Your task to perform on an android device: uninstall "Nova Launcher" Image 0: 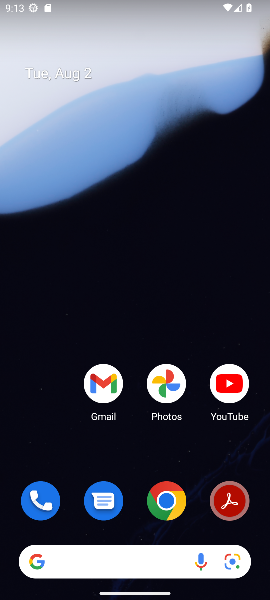
Step 0: drag from (135, 513) to (142, 135)
Your task to perform on an android device: uninstall "Nova Launcher" Image 1: 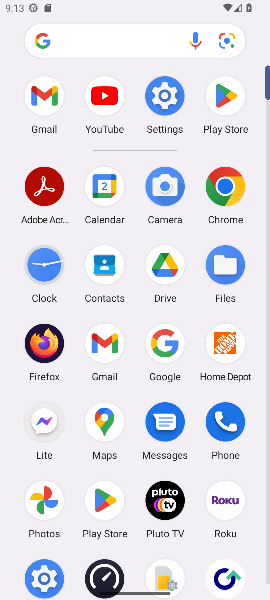
Step 1: click (235, 106)
Your task to perform on an android device: uninstall "Nova Launcher" Image 2: 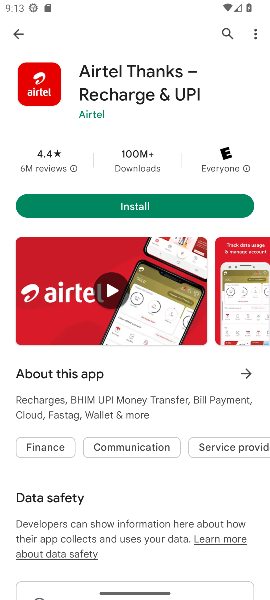
Step 2: drag from (155, 116) to (125, 594)
Your task to perform on an android device: uninstall "Nova Launcher" Image 3: 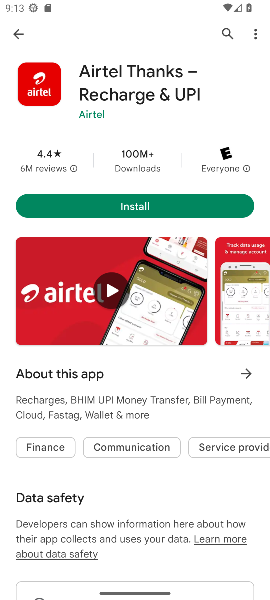
Step 3: click (223, 38)
Your task to perform on an android device: uninstall "Nova Launcher" Image 4: 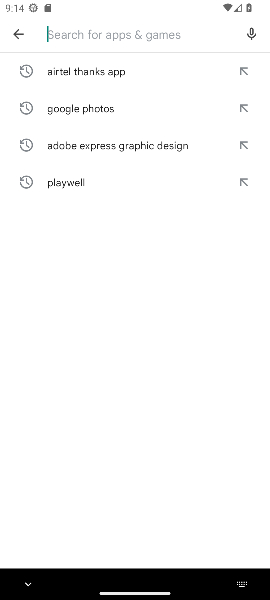
Step 4: type "Nova Launcher"
Your task to perform on an android device: uninstall "Nova Launcher" Image 5: 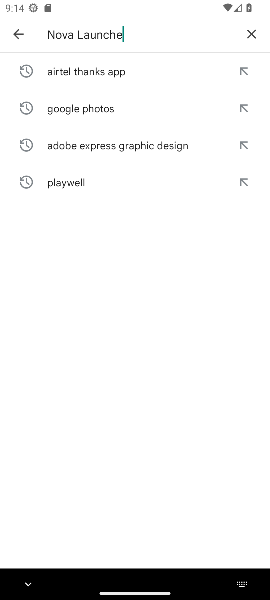
Step 5: type ""
Your task to perform on an android device: uninstall "Nova Launcher" Image 6: 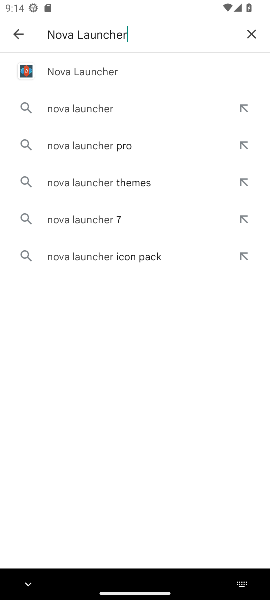
Step 6: click (80, 71)
Your task to perform on an android device: uninstall "Nova Launcher" Image 7: 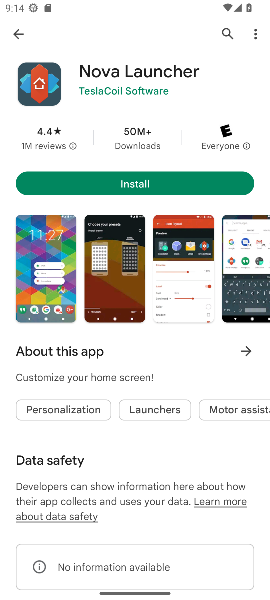
Step 7: task complete